Your task to perform on an android device: Show me popular videos on Youtube Image 0: 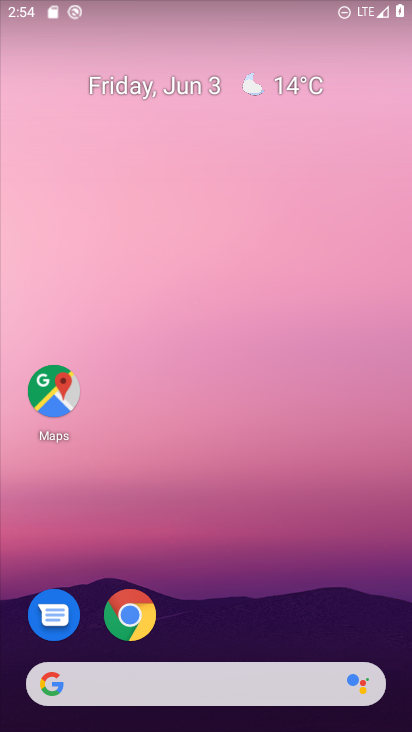
Step 0: click (205, 118)
Your task to perform on an android device: Show me popular videos on Youtube Image 1: 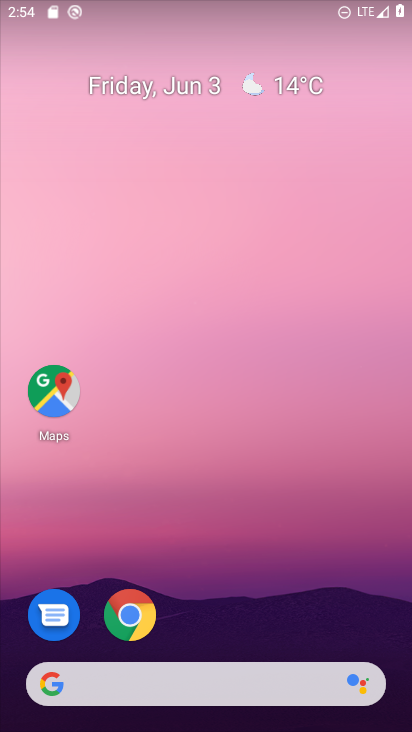
Step 1: click (244, 225)
Your task to perform on an android device: Show me popular videos on Youtube Image 2: 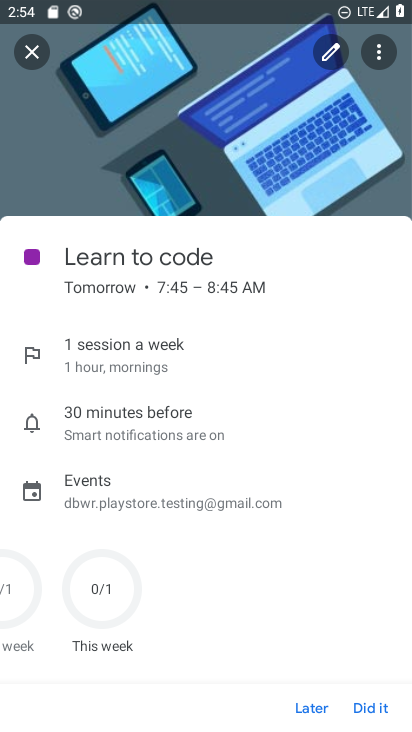
Step 2: press home button
Your task to perform on an android device: Show me popular videos on Youtube Image 3: 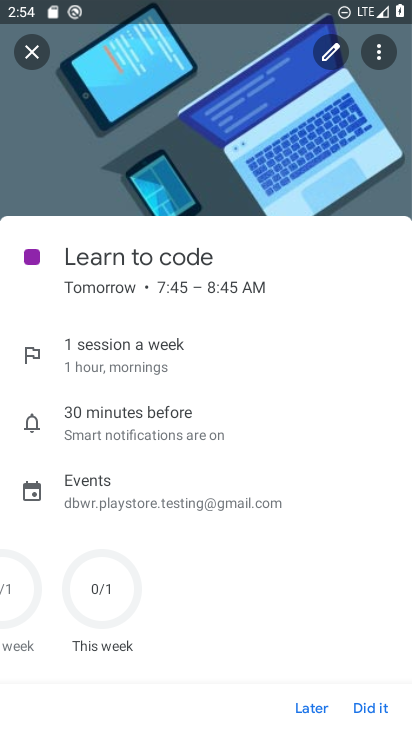
Step 3: click (228, 73)
Your task to perform on an android device: Show me popular videos on Youtube Image 4: 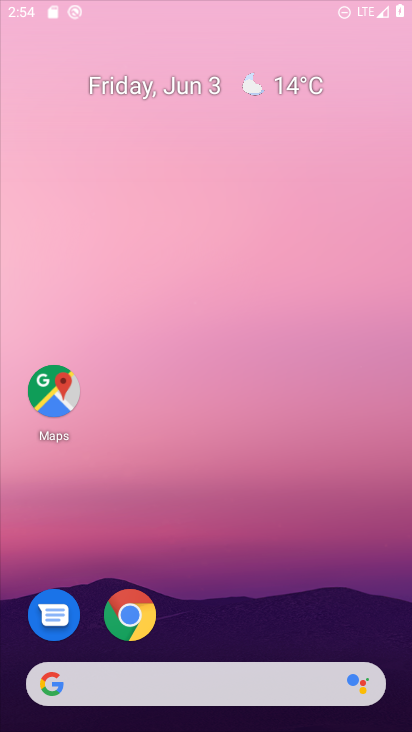
Step 4: drag from (195, 599) to (263, 111)
Your task to perform on an android device: Show me popular videos on Youtube Image 5: 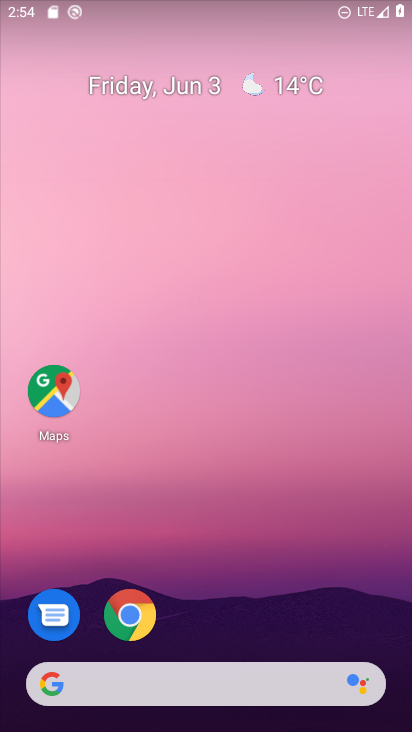
Step 5: drag from (215, 591) to (260, 138)
Your task to perform on an android device: Show me popular videos on Youtube Image 6: 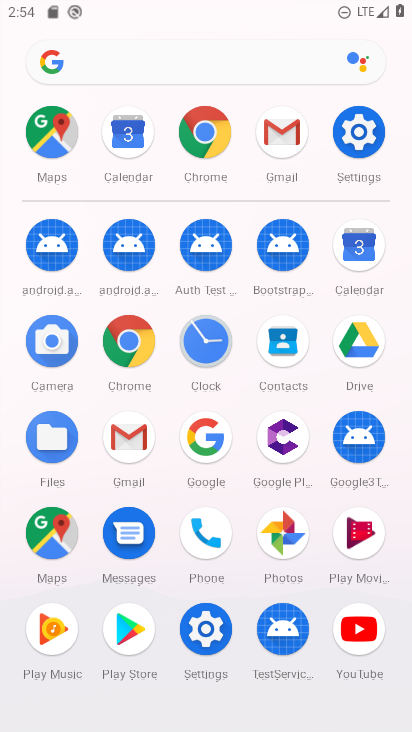
Step 6: click (391, 624)
Your task to perform on an android device: Show me popular videos on Youtube Image 7: 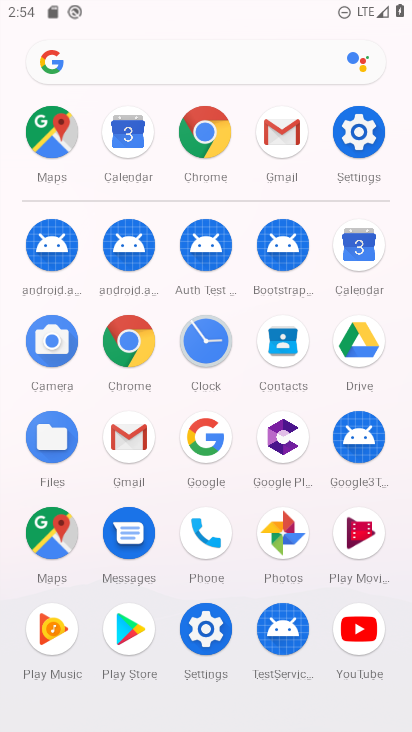
Step 7: click (386, 623)
Your task to perform on an android device: Show me popular videos on Youtube Image 8: 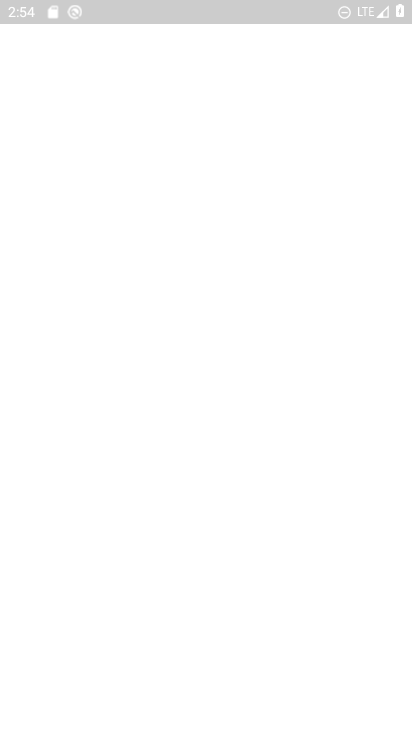
Step 8: task complete